Your task to perform on an android device: Show me popular videos on Youtube Image 0: 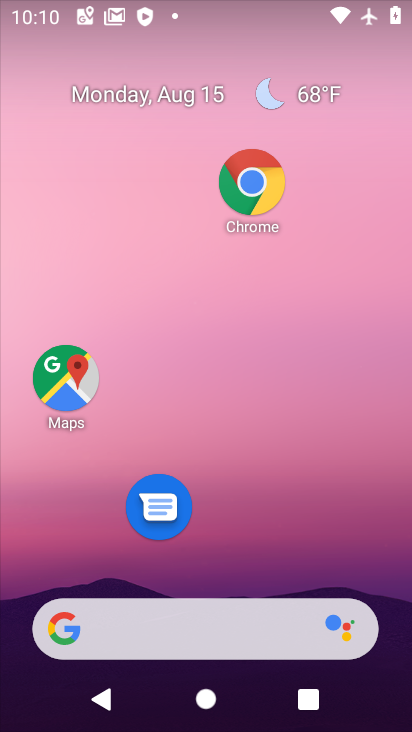
Step 0: drag from (254, 591) to (287, 75)
Your task to perform on an android device: Show me popular videos on Youtube Image 1: 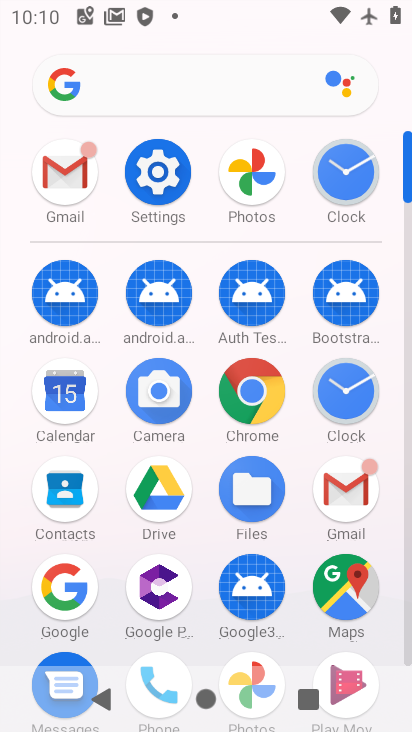
Step 1: click (407, 651)
Your task to perform on an android device: Show me popular videos on Youtube Image 2: 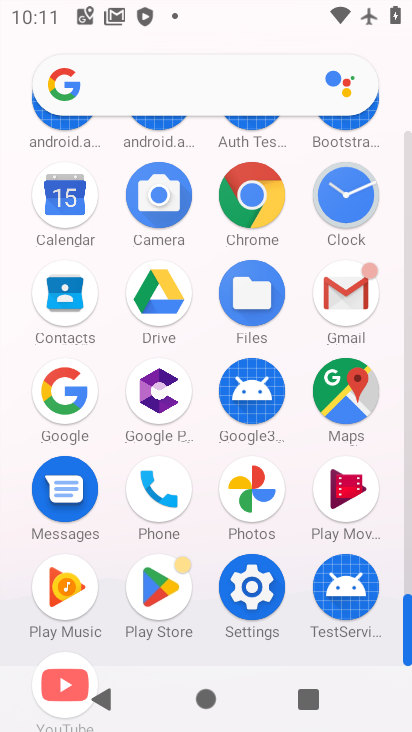
Step 2: click (65, 651)
Your task to perform on an android device: Show me popular videos on Youtube Image 3: 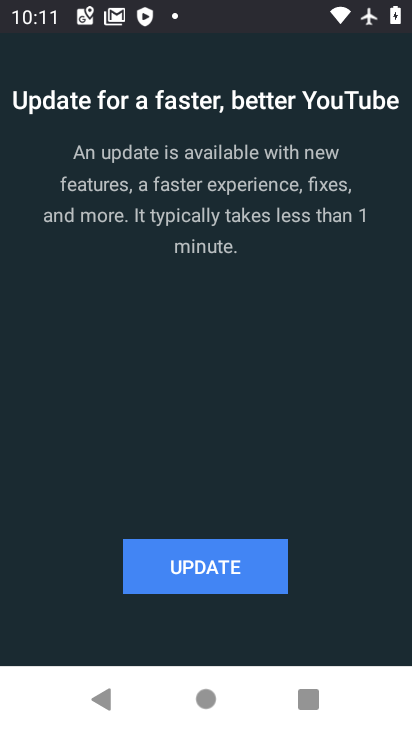
Step 3: click (177, 566)
Your task to perform on an android device: Show me popular videos on Youtube Image 4: 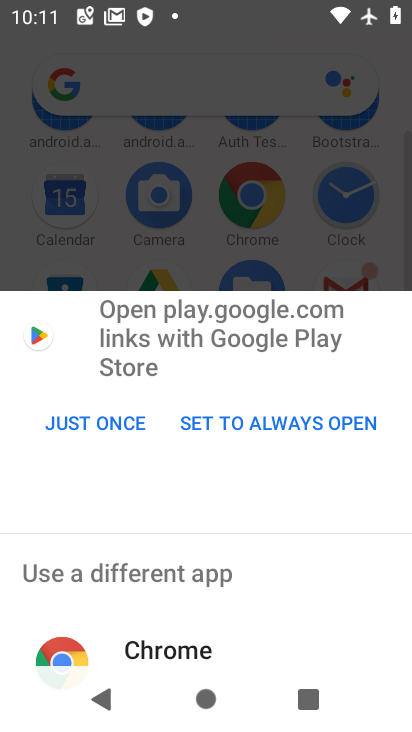
Step 4: click (103, 451)
Your task to perform on an android device: Show me popular videos on Youtube Image 5: 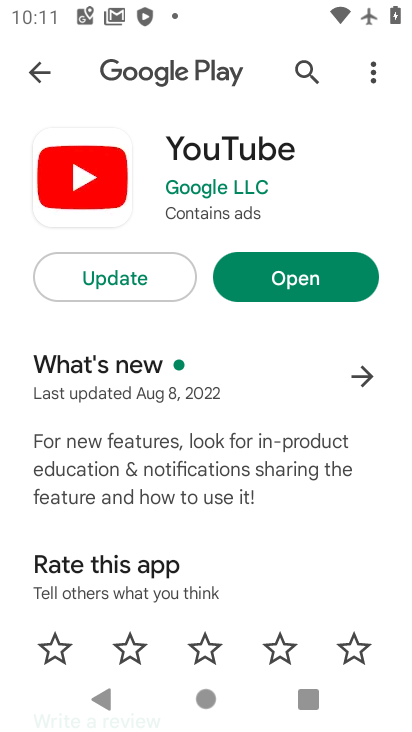
Step 5: click (140, 287)
Your task to perform on an android device: Show me popular videos on Youtube Image 6: 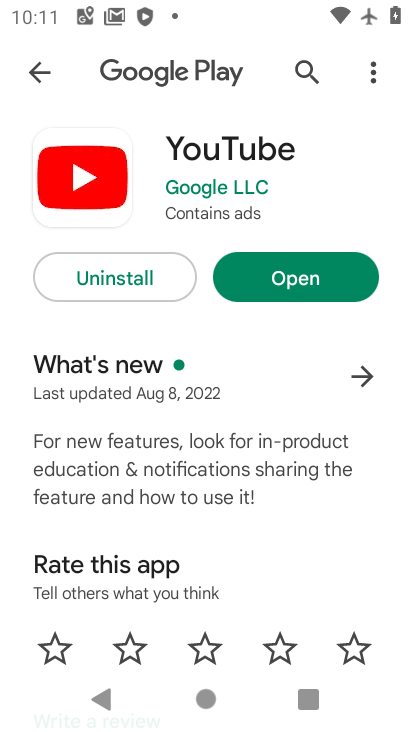
Step 6: click (341, 278)
Your task to perform on an android device: Show me popular videos on Youtube Image 7: 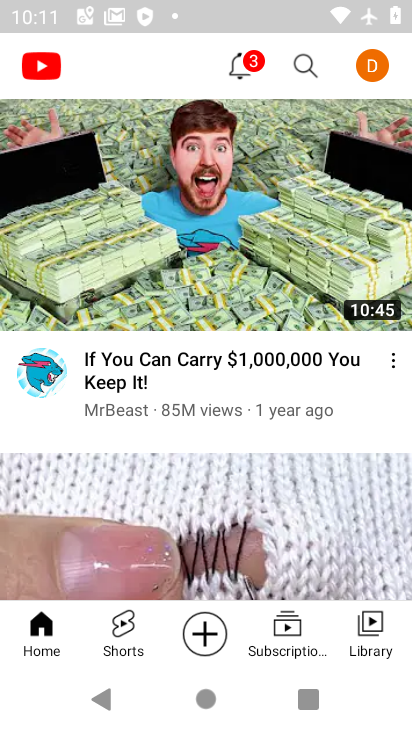
Step 7: task complete